Your task to perform on an android device: Open settings Image 0: 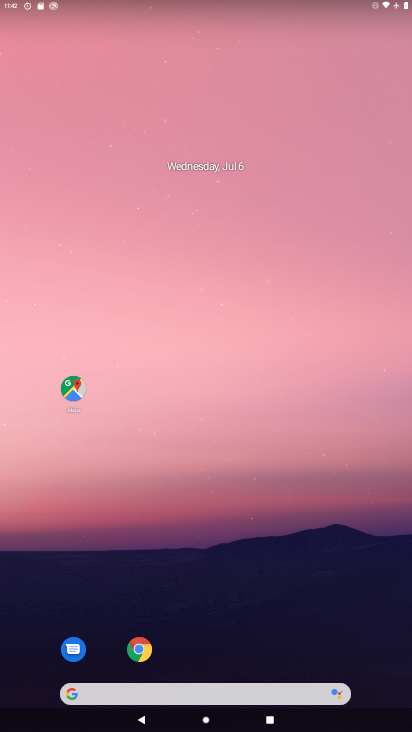
Step 0: drag from (392, 722) to (306, 103)
Your task to perform on an android device: Open settings Image 1: 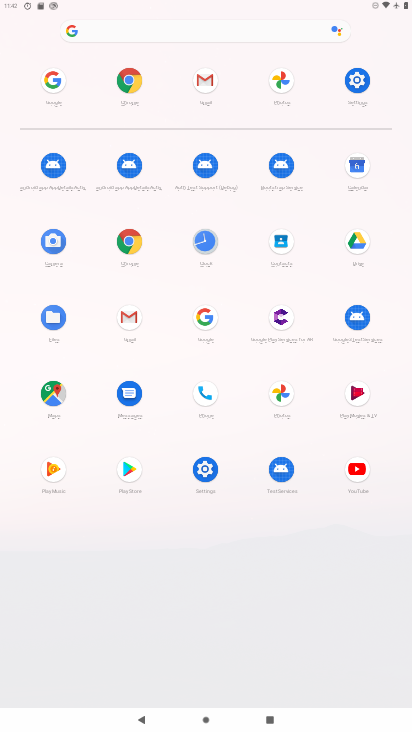
Step 1: click (364, 87)
Your task to perform on an android device: Open settings Image 2: 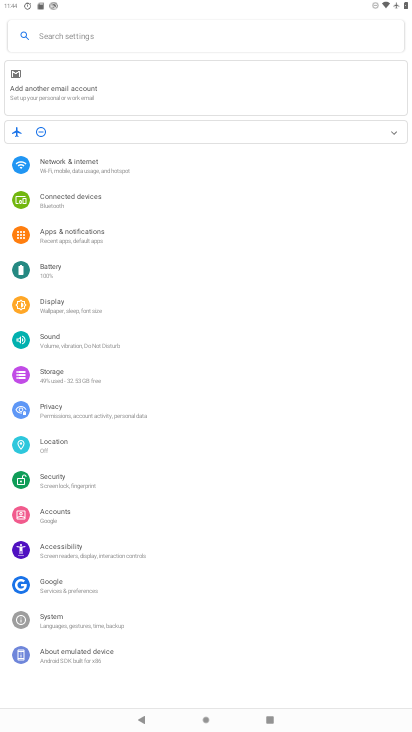
Step 2: task complete